Your task to perform on an android device: Search for "jbl charge 4" on newegg.com, select the first entry, and add it to the cart. Image 0: 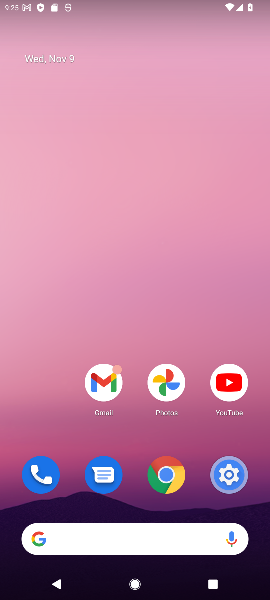
Step 0: click (169, 462)
Your task to perform on an android device: Search for "jbl charge 4" on newegg.com, select the first entry, and add it to the cart. Image 1: 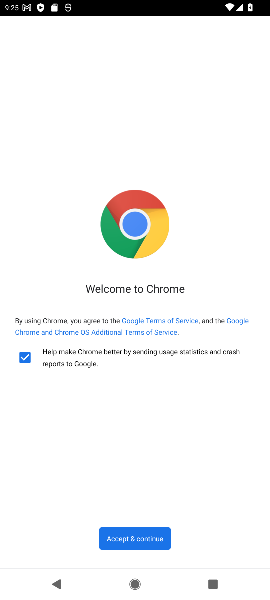
Step 1: click (145, 535)
Your task to perform on an android device: Search for "jbl charge 4" on newegg.com, select the first entry, and add it to the cart. Image 2: 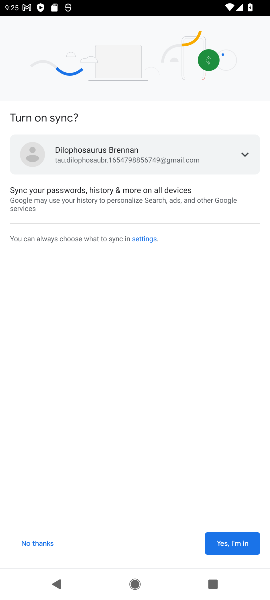
Step 2: click (218, 543)
Your task to perform on an android device: Search for "jbl charge 4" on newegg.com, select the first entry, and add it to the cart. Image 3: 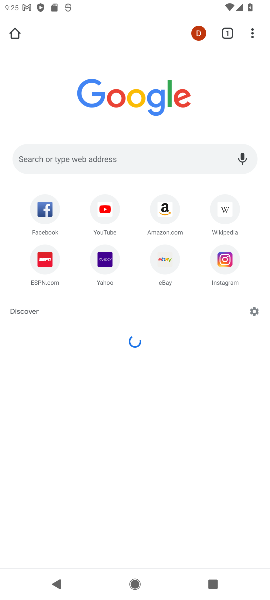
Step 3: click (122, 158)
Your task to perform on an android device: Search for "jbl charge 4" on newegg.com, select the first entry, and add it to the cart. Image 4: 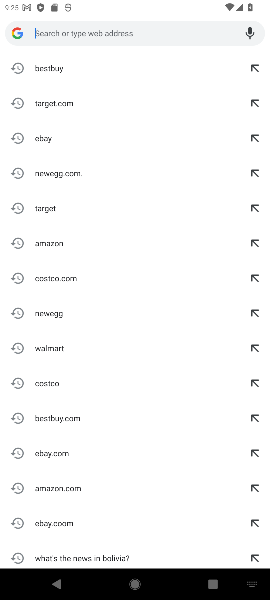
Step 4: click (48, 312)
Your task to perform on an android device: Search for "jbl charge 4" on newegg.com, select the first entry, and add it to the cart. Image 5: 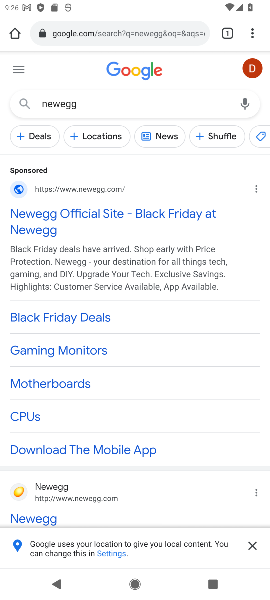
Step 5: drag from (94, 479) to (140, 238)
Your task to perform on an android device: Search for "jbl charge 4" on newegg.com, select the first entry, and add it to the cart. Image 6: 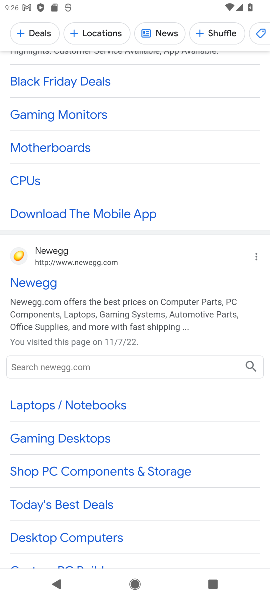
Step 6: click (48, 369)
Your task to perform on an android device: Search for "jbl charge 4" on newegg.com, select the first entry, and add it to the cart. Image 7: 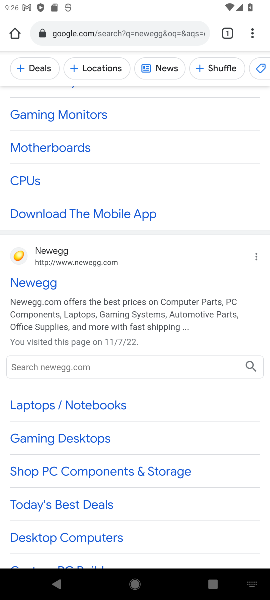
Step 7: type "jbl charge 4"
Your task to perform on an android device: Search for "jbl charge 4" on newegg.com, select the first entry, and add it to the cart. Image 8: 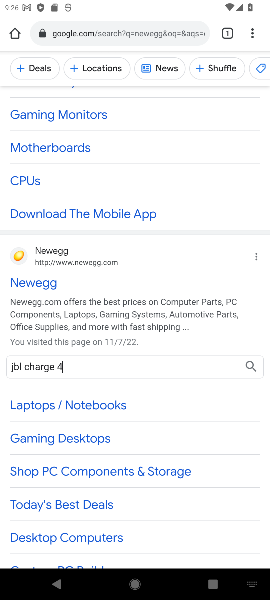
Step 8: click (252, 366)
Your task to perform on an android device: Search for "jbl charge 4" on newegg.com, select the first entry, and add it to the cart. Image 9: 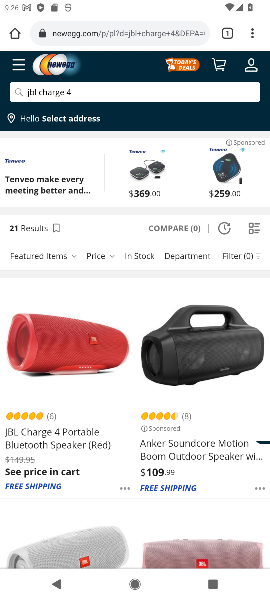
Step 9: click (51, 449)
Your task to perform on an android device: Search for "jbl charge 4" on newegg.com, select the first entry, and add it to the cart. Image 10: 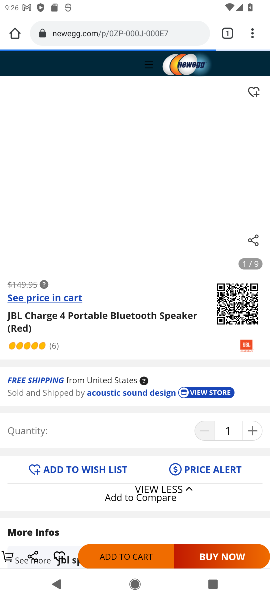
Step 10: click (111, 545)
Your task to perform on an android device: Search for "jbl charge 4" on newegg.com, select the first entry, and add it to the cart. Image 11: 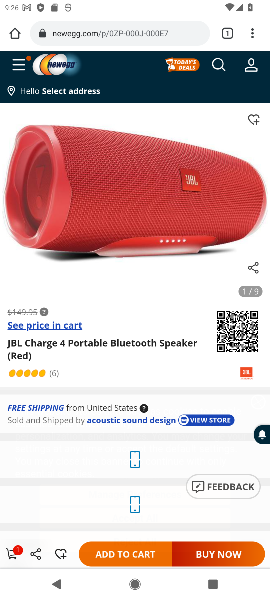
Step 11: click (122, 555)
Your task to perform on an android device: Search for "jbl charge 4" on newegg.com, select the first entry, and add it to the cart. Image 12: 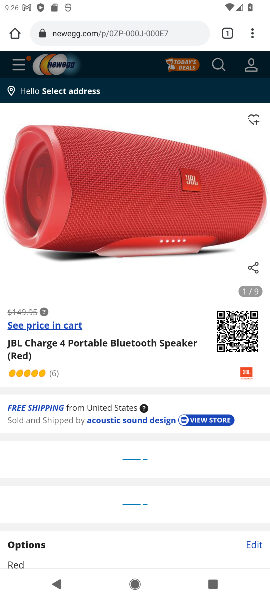
Step 12: task complete